Your task to perform on an android device: choose inbox layout in the gmail app Image 0: 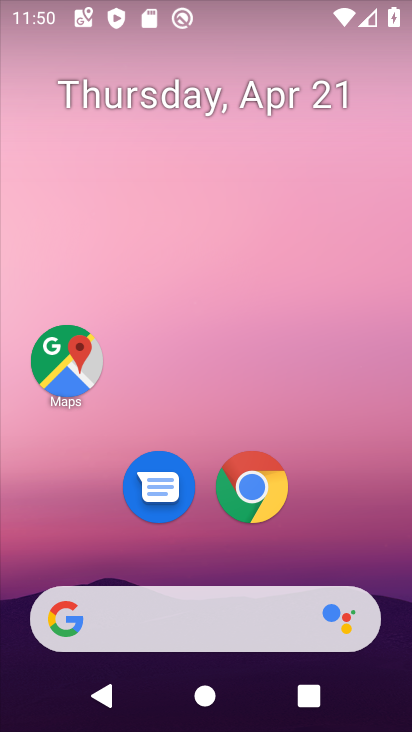
Step 0: drag from (209, 549) to (212, 63)
Your task to perform on an android device: choose inbox layout in the gmail app Image 1: 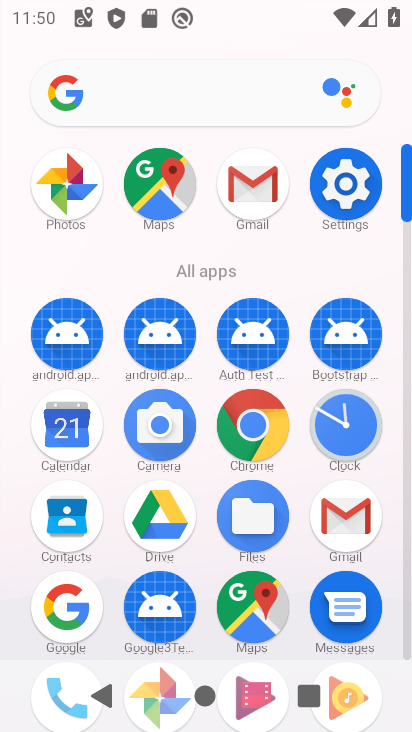
Step 1: click (276, 181)
Your task to perform on an android device: choose inbox layout in the gmail app Image 2: 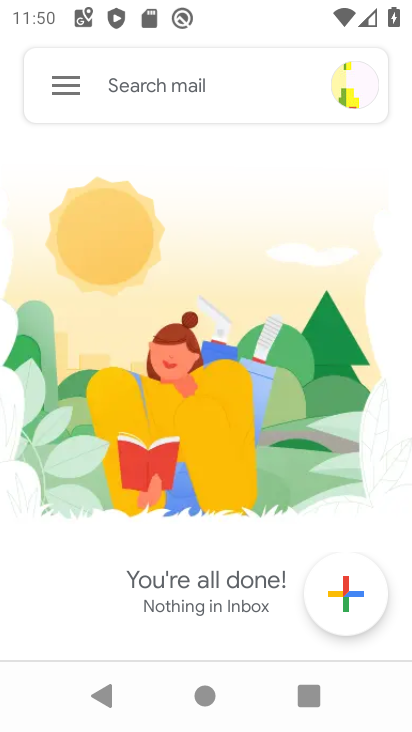
Step 2: click (77, 98)
Your task to perform on an android device: choose inbox layout in the gmail app Image 3: 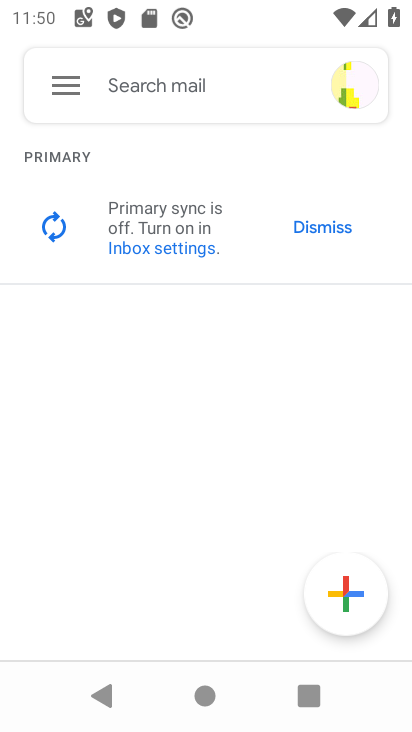
Step 3: click (77, 87)
Your task to perform on an android device: choose inbox layout in the gmail app Image 4: 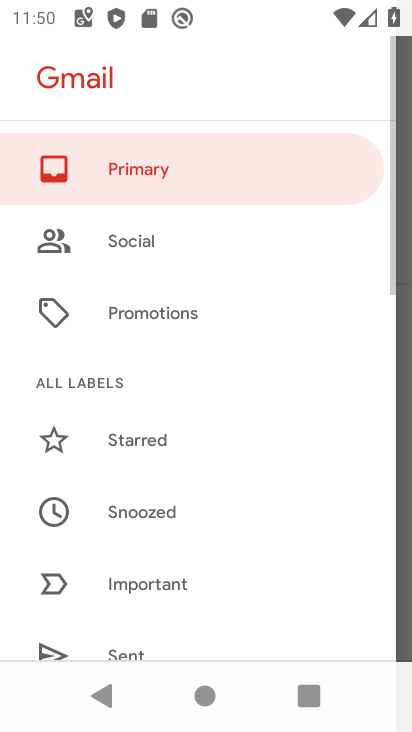
Step 4: drag from (116, 622) to (125, 194)
Your task to perform on an android device: choose inbox layout in the gmail app Image 5: 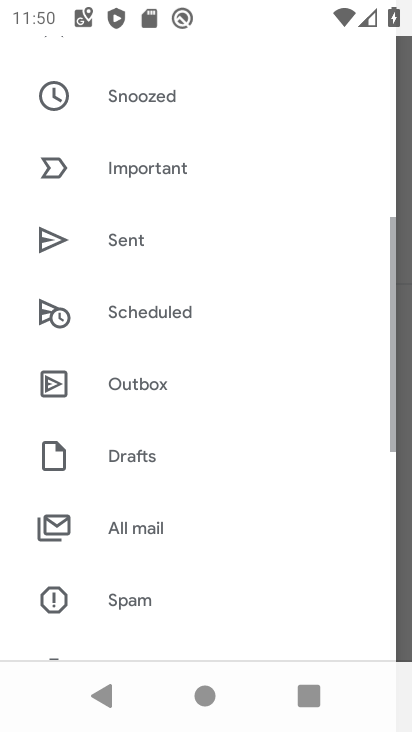
Step 5: drag from (117, 614) to (164, 184)
Your task to perform on an android device: choose inbox layout in the gmail app Image 6: 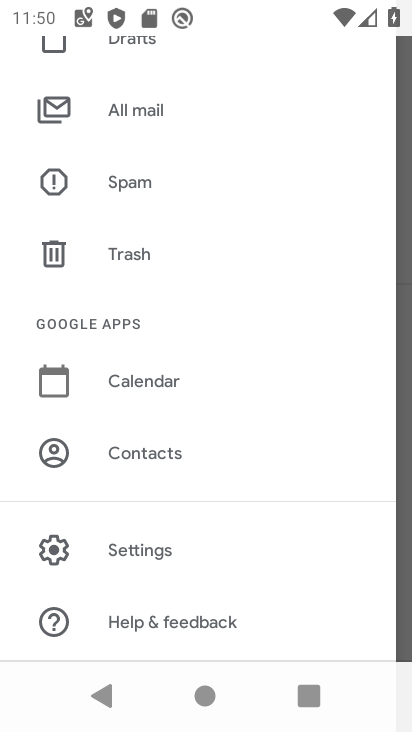
Step 6: click (109, 545)
Your task to perform on an android device: choose inbox layout in the gmail app Image 7: 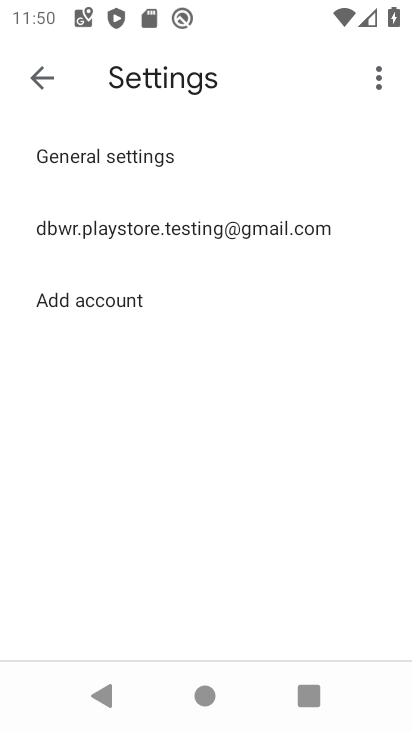
Step 7: click (226, 232)
Your task to perform on an android device: choose inbox layout in the gmail app Image 8: 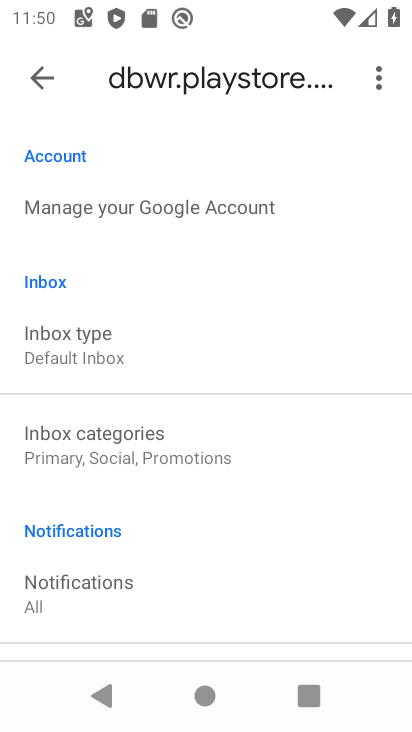
Step 8: click (108, 342)
Your task to perform on an android device: choose inbox layout in the gmail app Image 9: 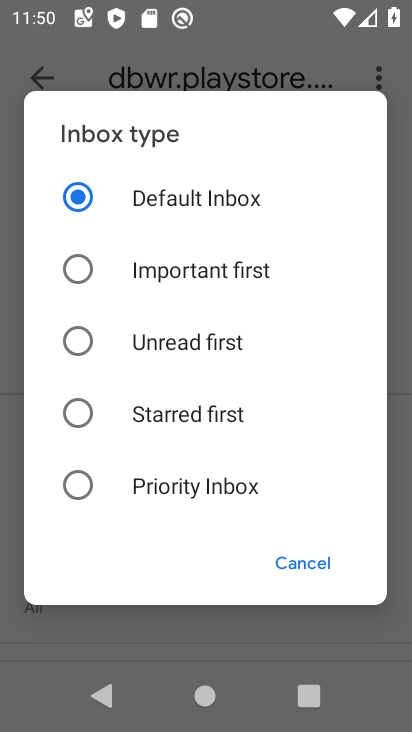
Step 9: click (200, 411)
Your task to perform on an android device: choose inbox layout in the gmail app Image 10: 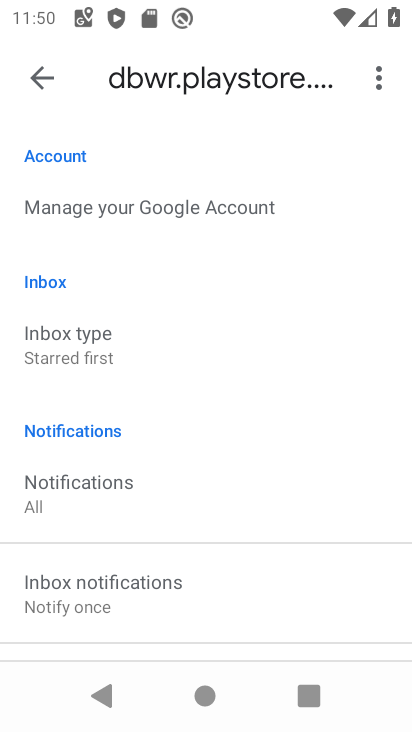
Step 10: task complete